Your task to perform on an android device: see tabs open on other devices in the chrome app Image 0: 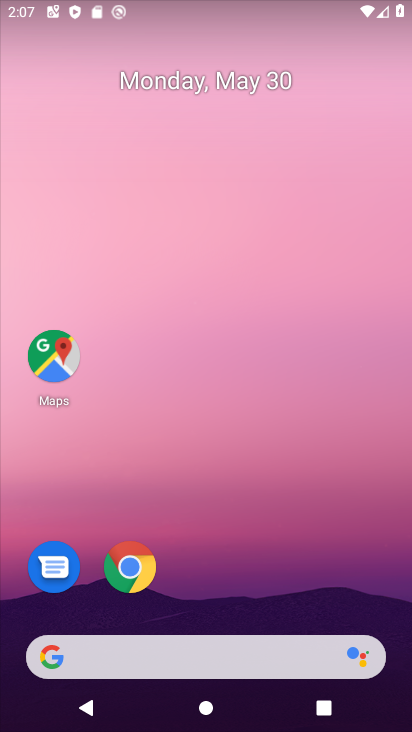
Step 0: click (133, 574)
Your task to perform on an android device: see tabs open on other devices in the chrome app Image 1: 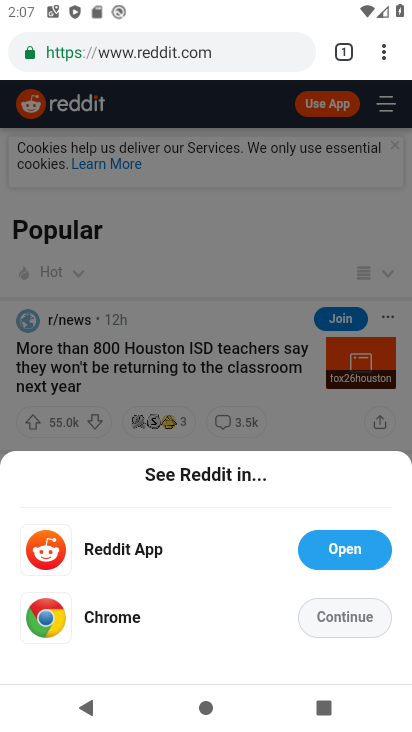
Step 1: click (389, 51)
Your task to perform on an android device: see tabs open on other devices in the chrome app Image 2: 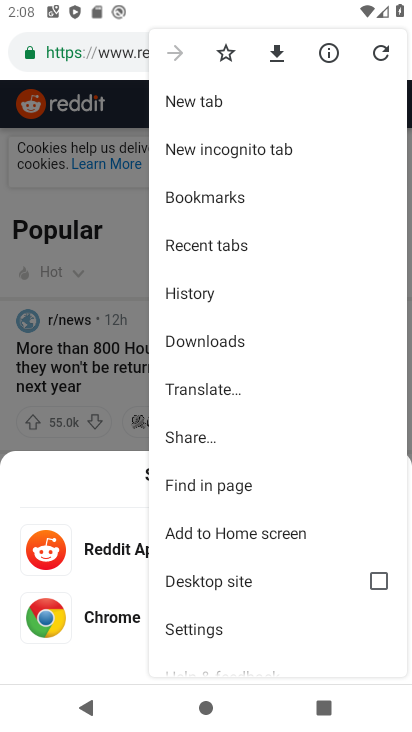
Step 2: click (216, 236)
Your task to perform on an android device: see tabs open on other devices in the chrome app Image 3: 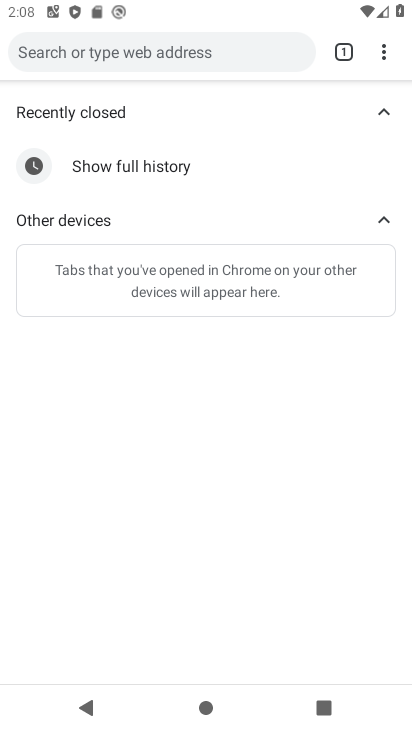
Step 3: task complete